Your task to perform on an android device: Go to Yahoo.com Image 0: 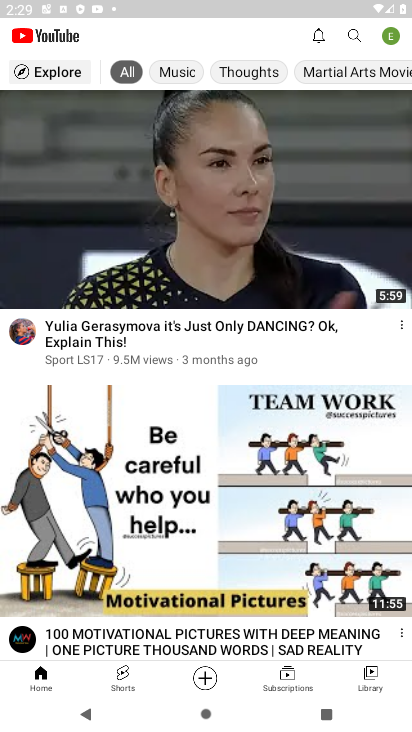
Step 0: press home button
Your task to perform on an android device: Go to Yahoo.com Image 1: 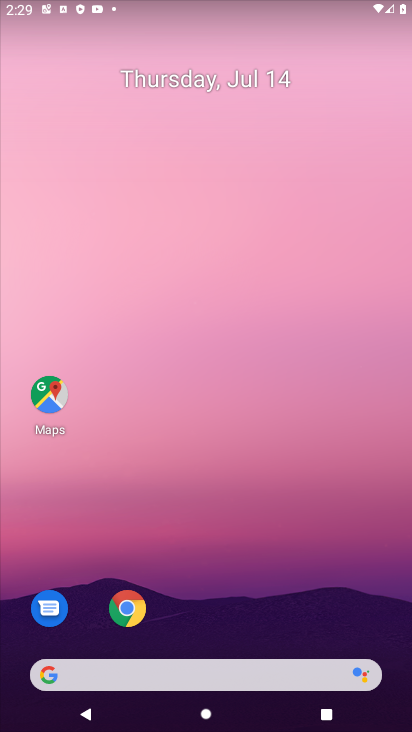
Step 1: click (127, 610)
Your task to perform on an android device: Go to Yahoo.com Image 2: 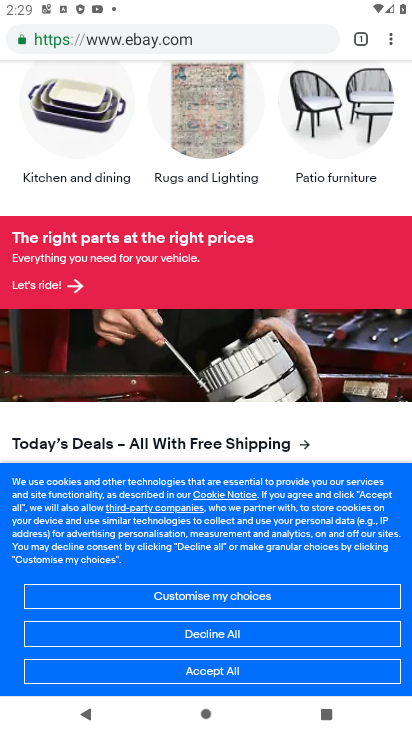
Step 2: click (236, 37)
Your task to perform on an android device: Go to Yahoo.com Image 3: 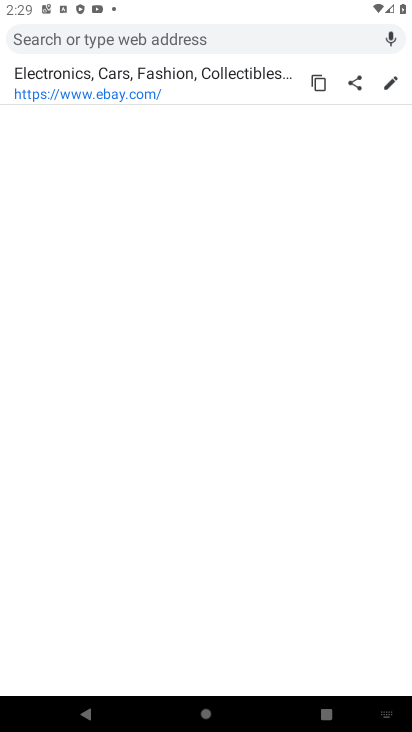
Step 3: type "Yahoo.com"
Your task to perform on an android device: Go to Yahoo.com Image 4: 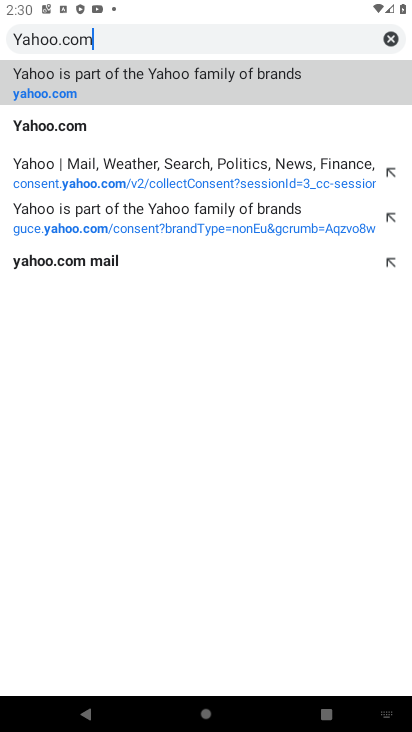
Step 4: click (69, 82)
Your task to perform on an android device: Go to Yahoo.com Image 5: 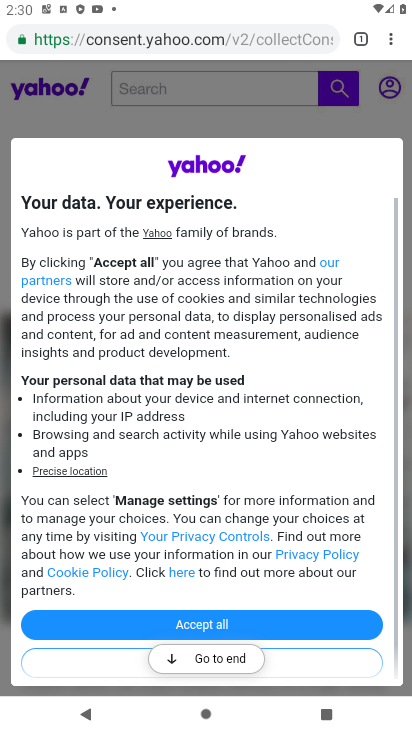
Step 5: click (186, 625)
Your task to perform on an android device: Go to Yahoo.com Image 6: 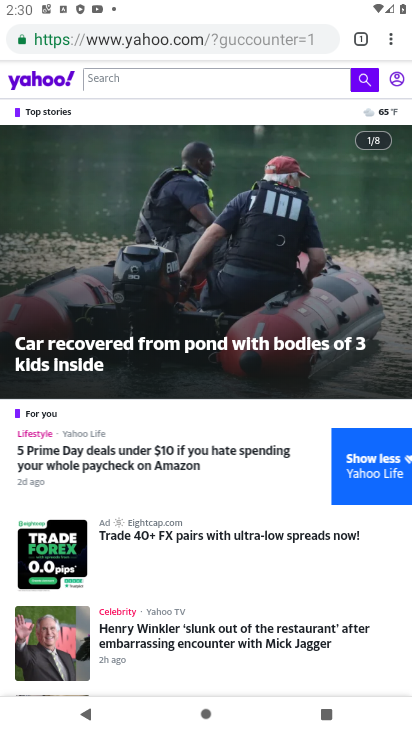
Step 6: task complete